Your task to perform on an android device: turn on improve location accuracy Image 0: 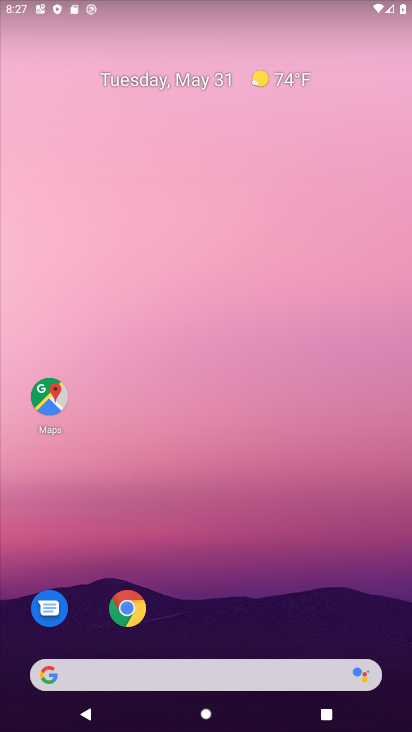
Step 0: drag from (200, 634) to (174, 27)
Your task to perform on an android device: turn on improve location accuracy Image 1: 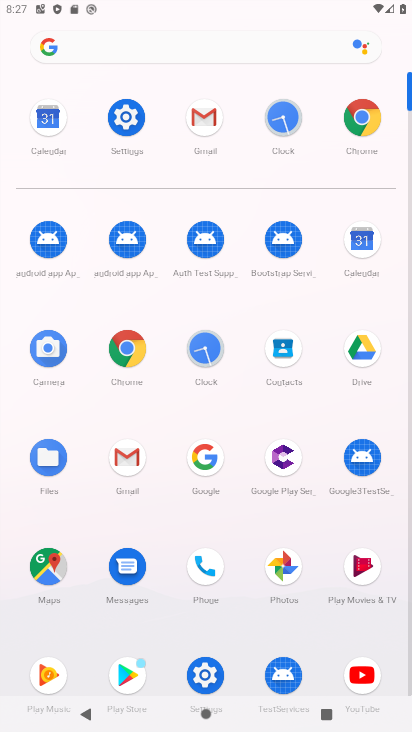
Step 1: click (137, 126)
Your task to perform on an android device: turn on improve location accuracy Image 2: 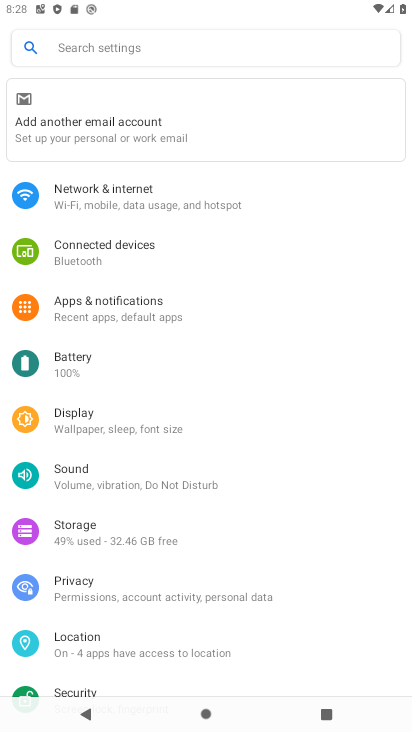
Step 2: click (78, 645)
Your task to perform on an android device: turn on improve location accuracy Image 3: 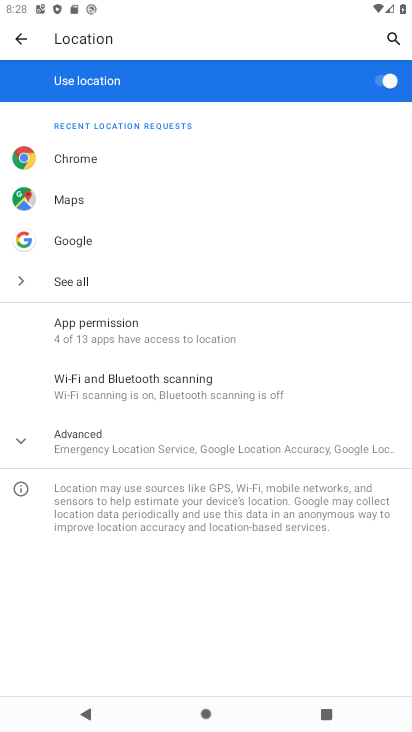
Step 3: click (121, 452)
Your task to perform on an android device: turn on improve location accuracy Image 4: 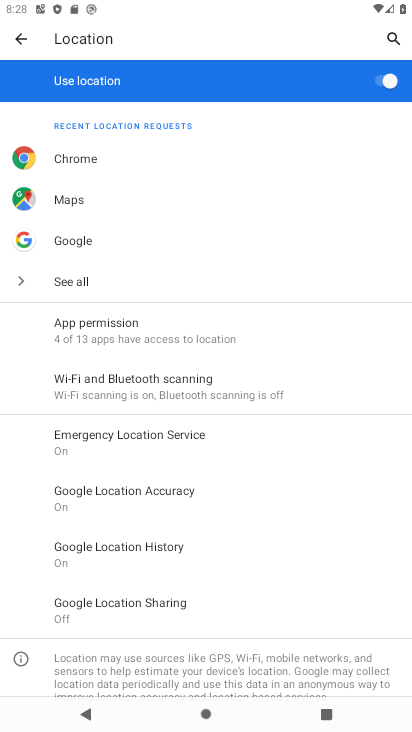
Step 4: click (141, 484)
Your task to perform on an android device: turn on improve location accuracy Image 5: 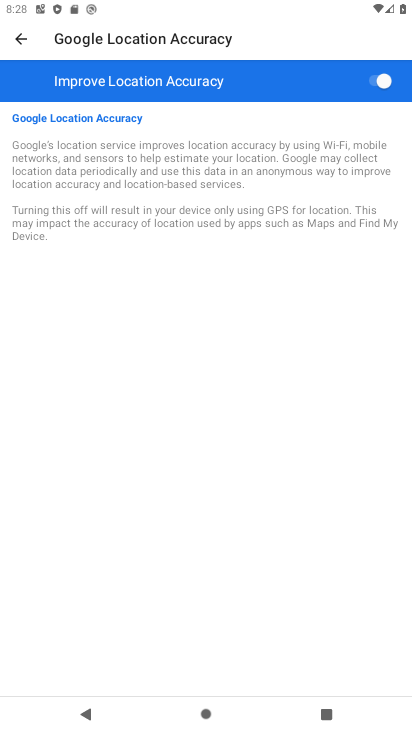
Step 5: task complete